Your task to perform on an android device: Open wifi settings Image 0: 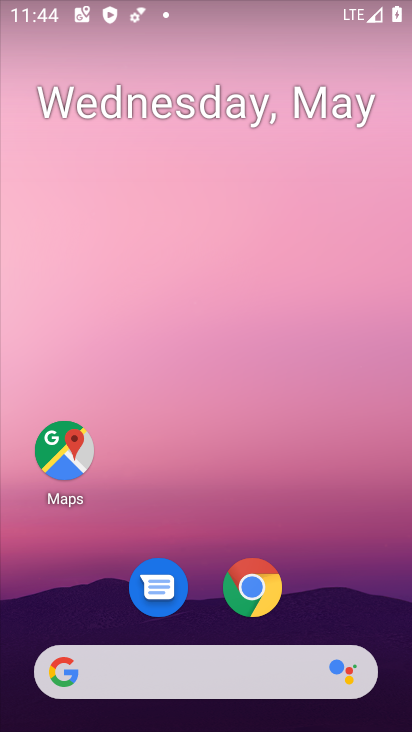
Step 0: drag from (305, 12) to (271, 586)
Your task to perform on an android device: Open wifi settings Image 1: 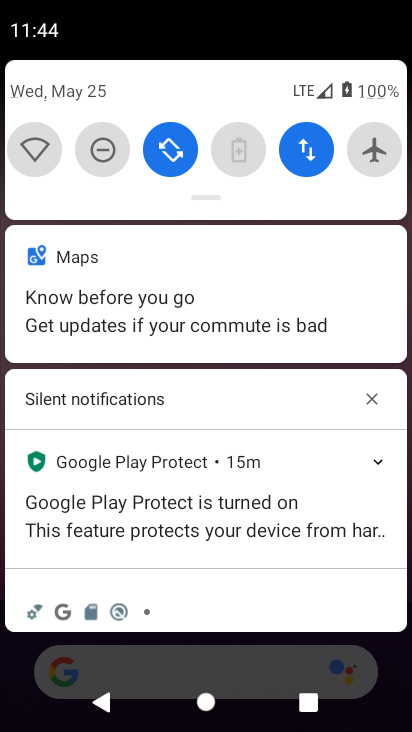
Step 1: click (23, 149)
Your task to perform on an android device: Open wifi settings Image 2: 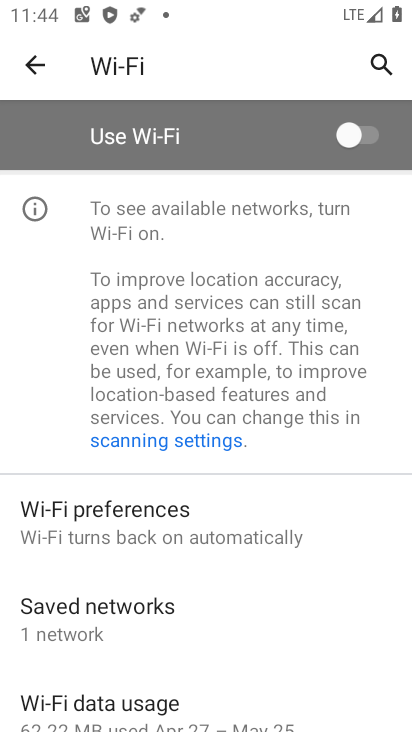
Step 2: task complete